Your task to perform on an android device: Show me the alarms in the clock app Image 0: 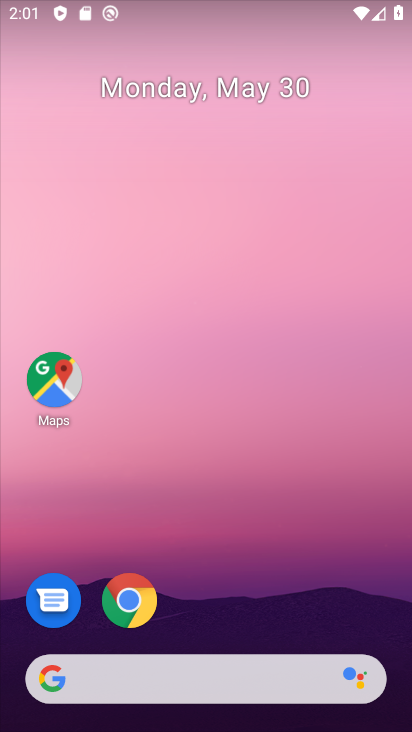
Step 0: drag from (265, 609) to (258, 132)
Your task to perform on an android device: Show me the alarms in the clock app Image 1: 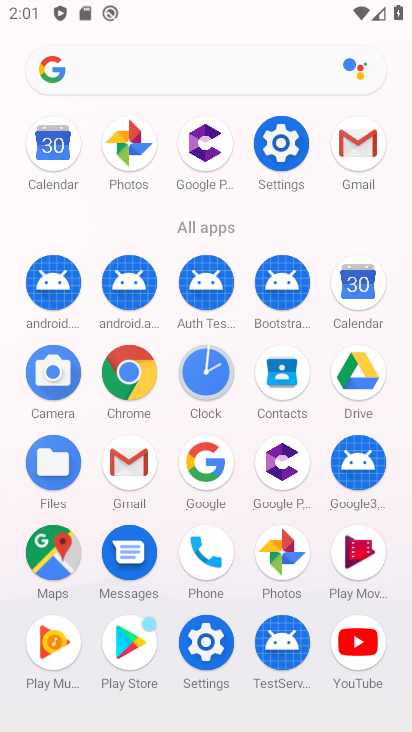
Step 1: click (210, 372)
Your task to perform on an android device: Show me the alarms in the clock app Image 2: 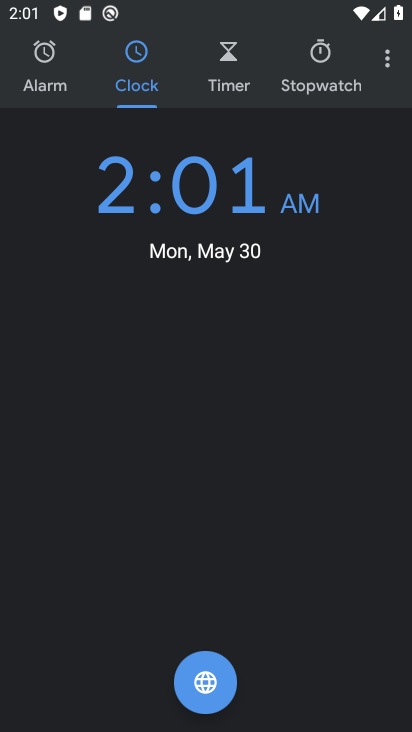
Step 2: click (58, 52)
Your task to perform on an android device: Show me the alarms in the clock app Image 3: 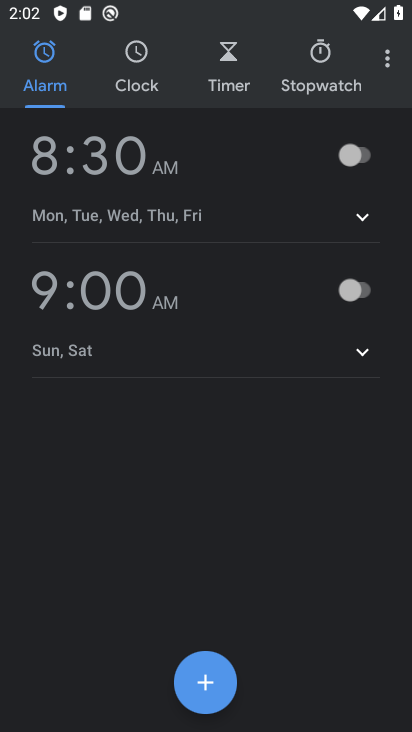
Step 3: task complete